Your task to perform on an android device: Open Google Maps Image 0: 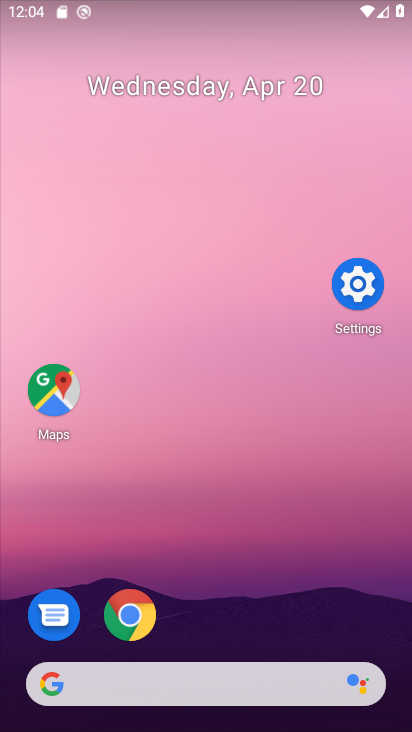
Step 0: drag from (194, 609) to (208, 3)
Your task to perform on an android device: Open Google Maps Image 1: 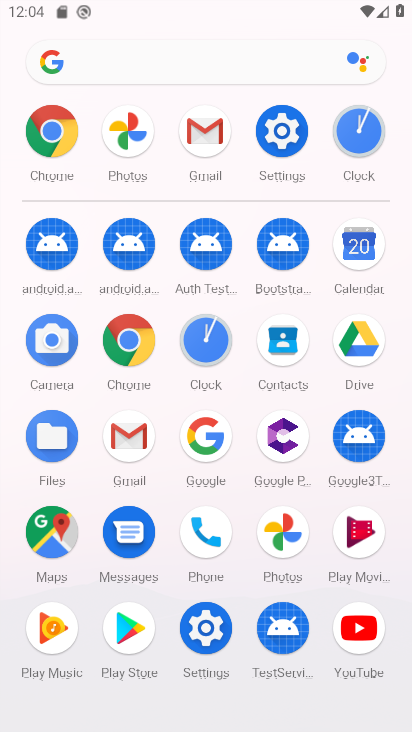
Step 1: click (52, 526)
Your task to perform on an android device: Open Google Maps Image 2: 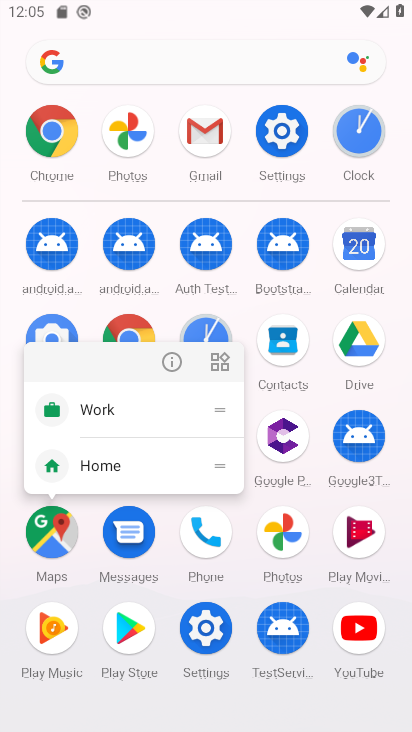
Step 2: click (168, 366)
Your task to perform on an android device: Open Google Maps Image 3: 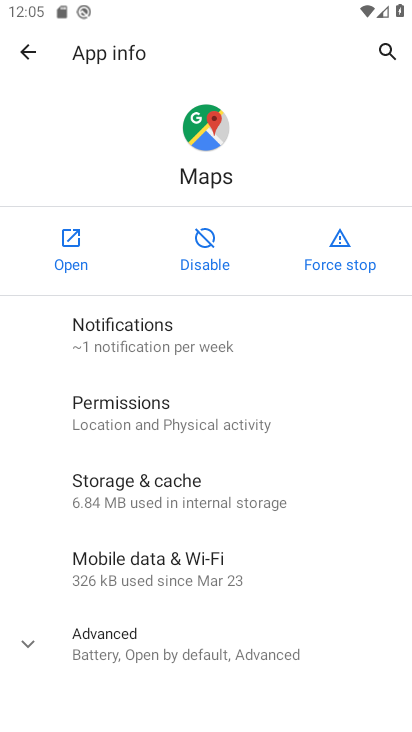
Step 3: click (81, 248)
Your task to perform on an android device: Open Google Maps Image 4: 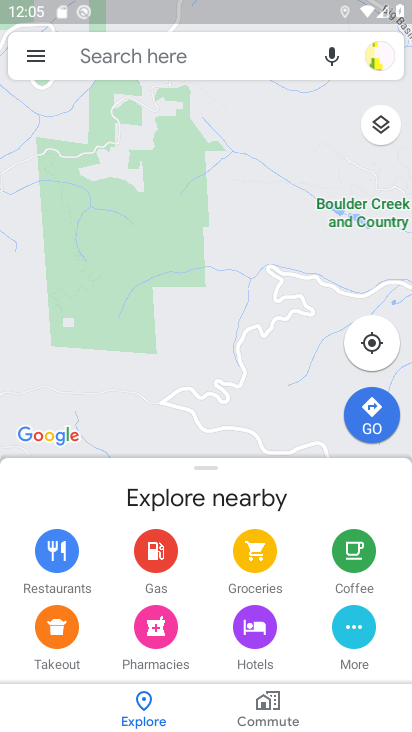
Step 4: drag from (205, 627) to (243, 406)
Your task to perform on an android device: Open Google Maps Image 5: 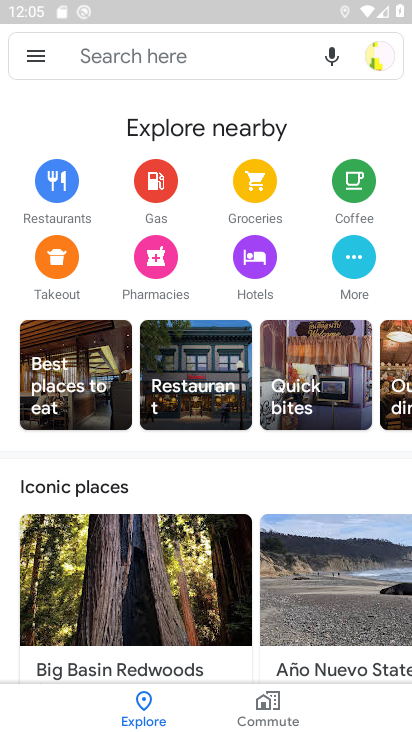
Step 5: drag from (234, 510) to (264, 303)
Your task to perform on an android device: Open Google Maps Image 6: 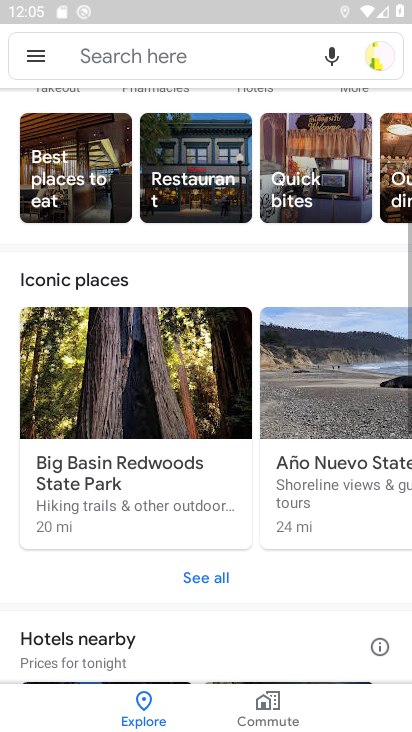
Step 6: drag from (237, 532) to (247, 351)
Your task to perform on an android device: Open Google Maps Image 7: 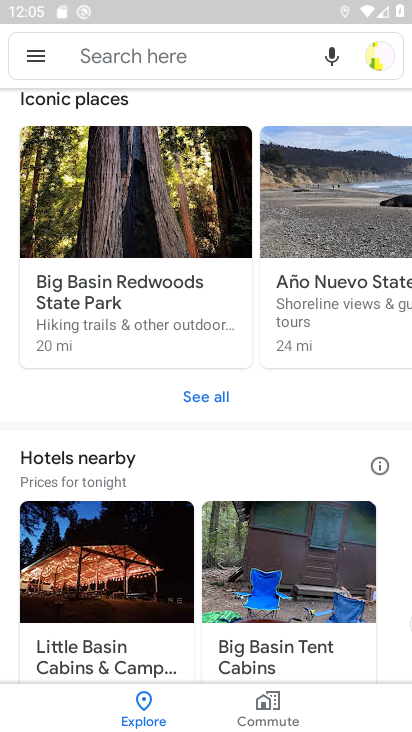
Step 7: drag from (246, 119) to (257, 528)
Your task to perform on an android device: Open Google Maps Image 8: 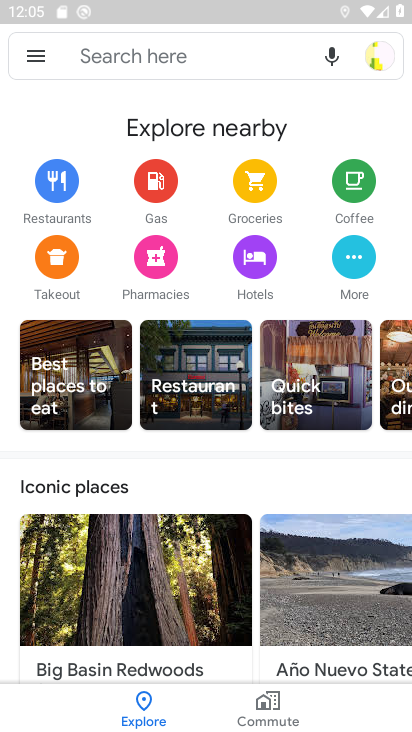
Step 8: drag from (278, 497) to (277, 223)
Your task to perform on an android device: Open Google Maps Image 9: 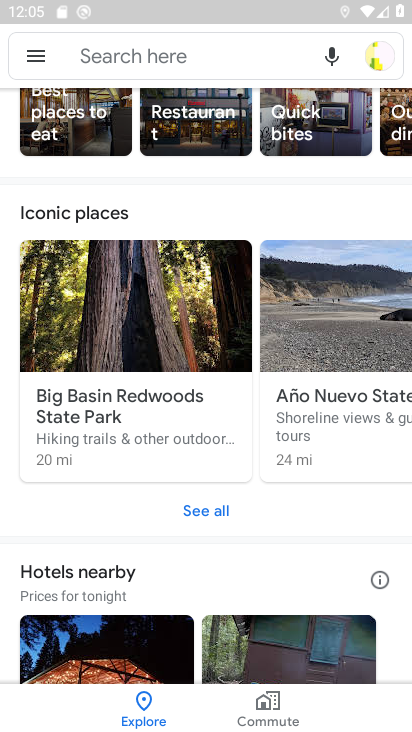
Step 9: drag from (235, 597) to (247, 253)
Your task to perform on an android device: Open Google Maps Image 10: 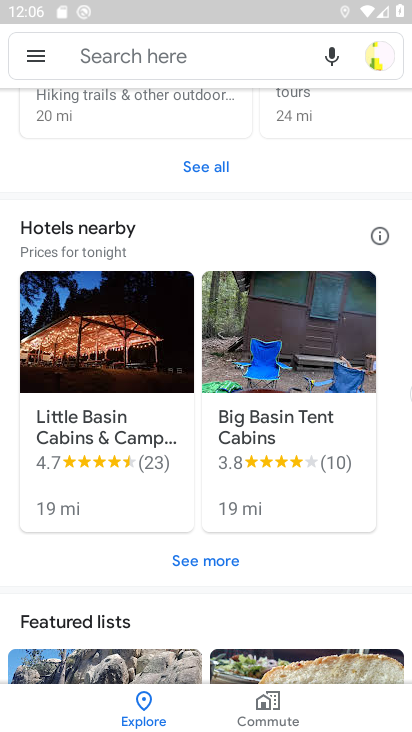
Step 10: drag from (225, 635) to (248, 245)
Your task to perform on an android device: Open Google Maps Image 11: 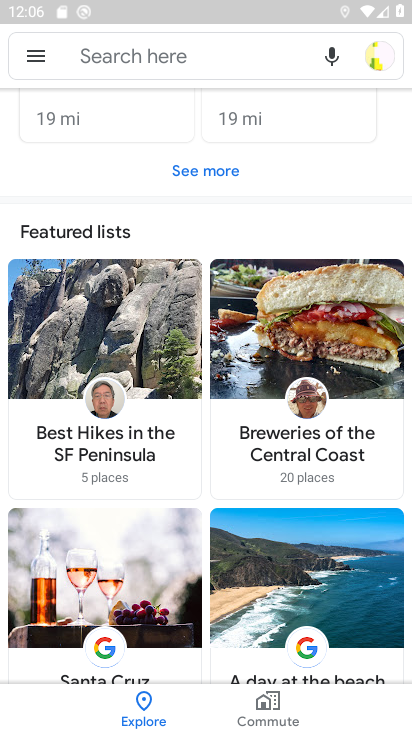
Step 11: drag from (294, 296) to (323, 658)
Your task to perform on an android device: Open Google Maps Image 12: 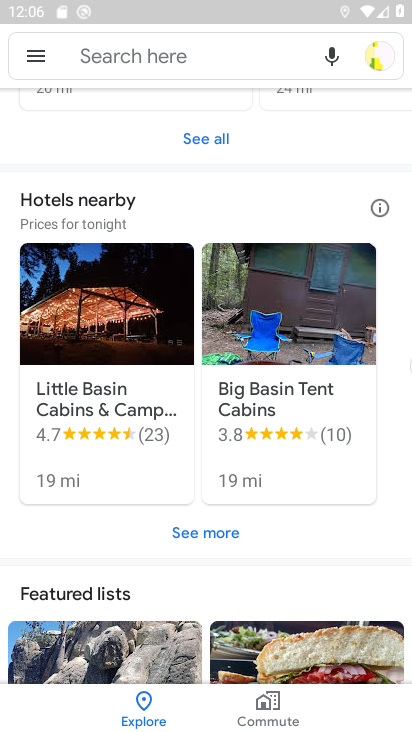
Step 12: press home button
Your task to perform on an android device: Open Google Maps Image 13: 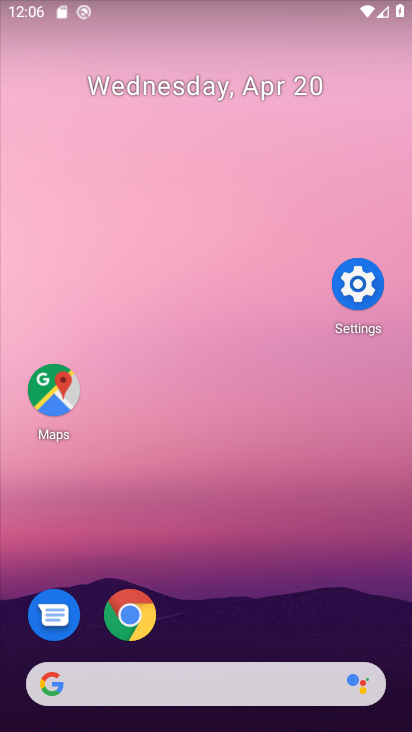
Step 13: drag from (224, 599) to (280, 167)
Your task to perform on an android device: Open Google Maps Image 14: 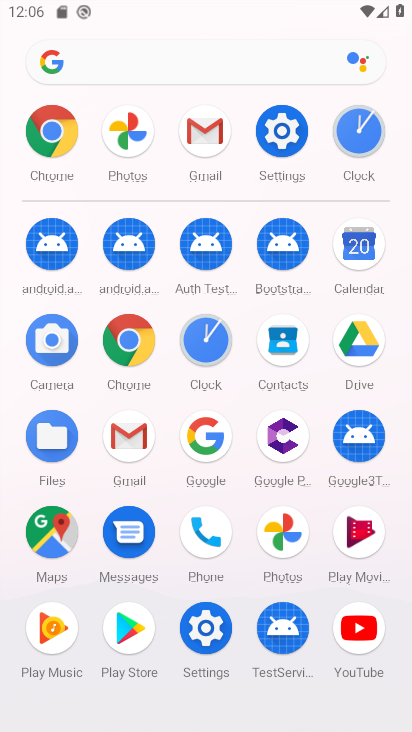
Step 14: click (64, 534)
Your task to perform on an android device: Open Google Maps Image 15: 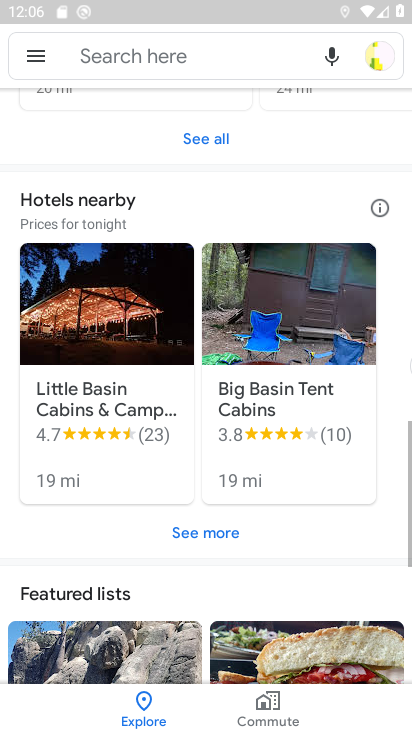
Step 15: task complete